Your task to perform on an android device: turn on airplane mode Image 0: 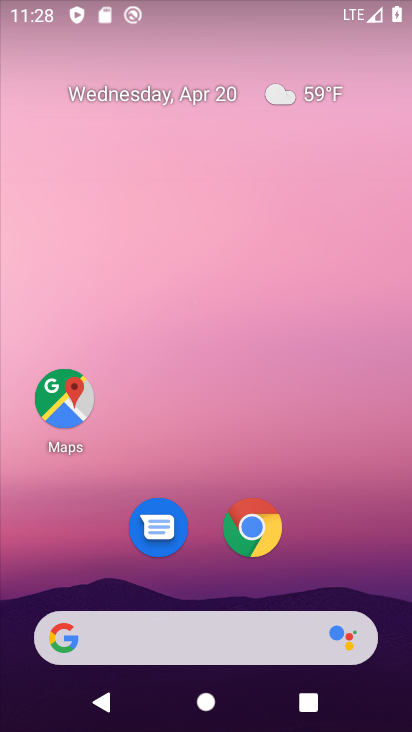
Step 0: drag from (354, 548) to (335, 207)
Your task to perform on an android device: turn on airplane mode Image 1: 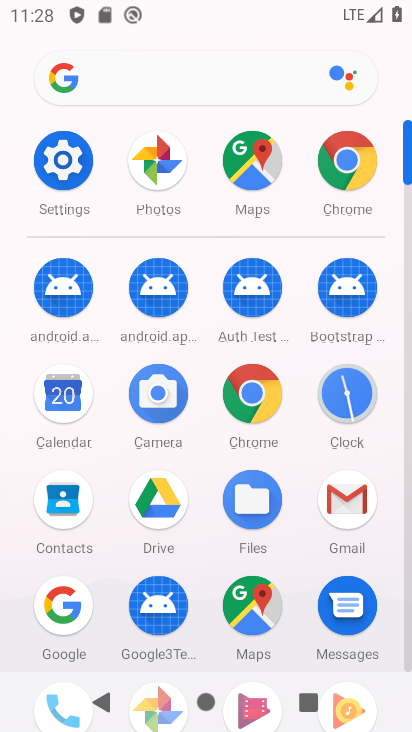
Step 1: click (72, 164)
Your task to perform on an android device: turn on airplane mode Image 2: 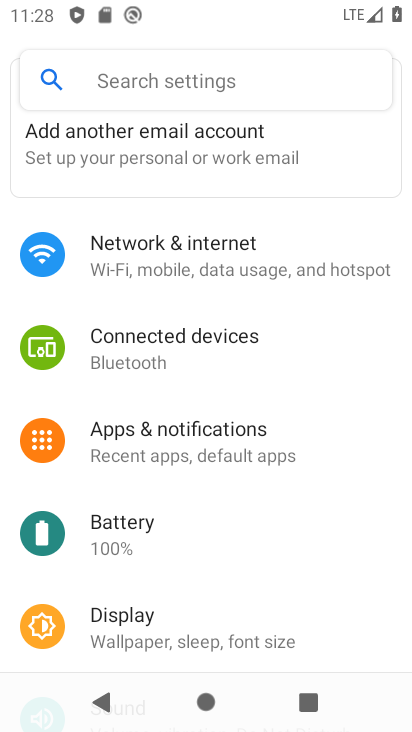
Step 2: click (234, 270)
Your task to perform on an android device: turn on airplane mode Image 3: 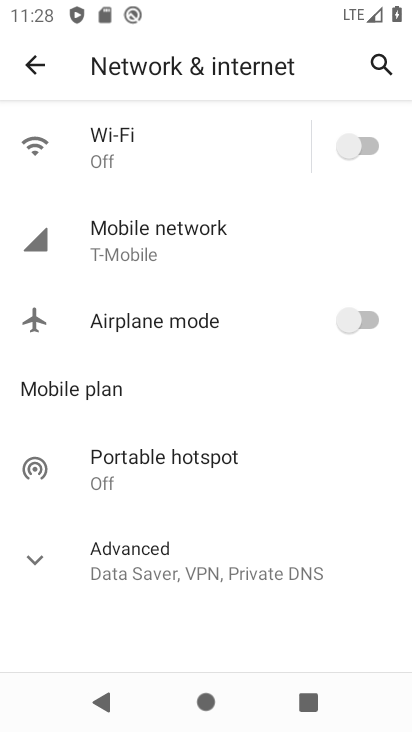
Step 3: click (375, 329)
Your task to perform on an android device: turn on airplane mode Image 4: 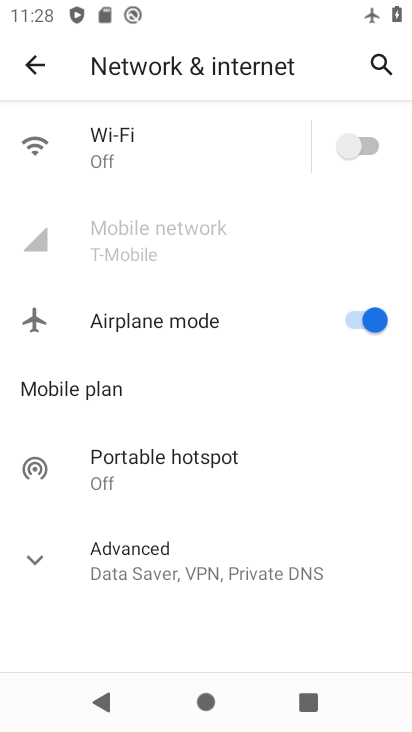
Step 4: task complete